Your task to perform on an android device: Toggle the flashlight Image 0: 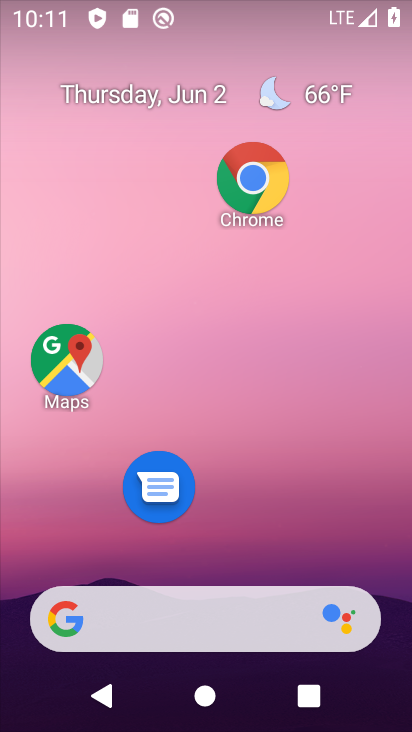
Step 0: drag from (224, 721) to (228, 135)
Your task to perform on an android device: Toggle the flashlight Image 1: 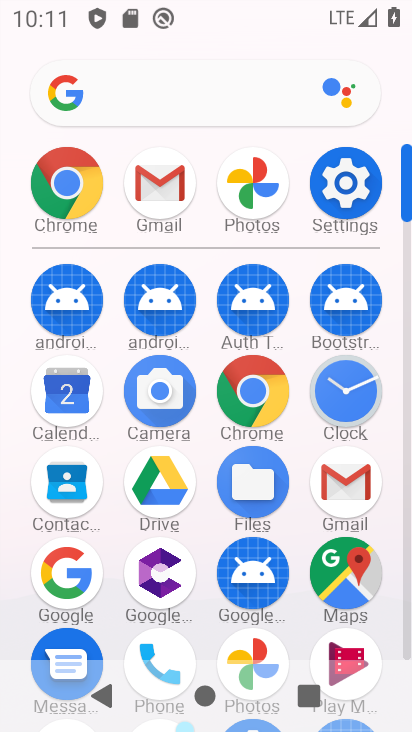
Step 1: click (352, 184)
Your task to perform on an android device: Toggle the flashlight Image 2: 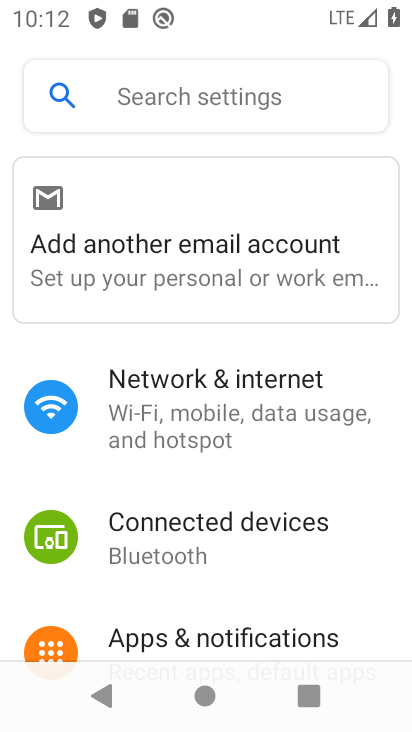
Step 2: task complete